Your task to perform on an android device: find which apps use the phone's location Image 0: 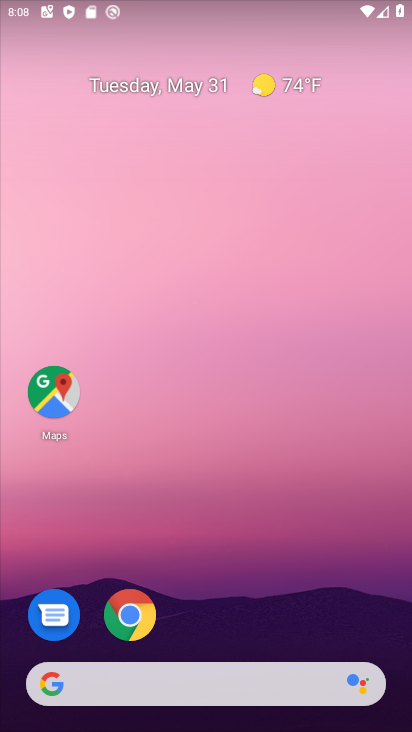
Step 0: drag from (172, 689) to (209, 117)
Your task to perform on an android device: find which apps use the phone's location Image 1: 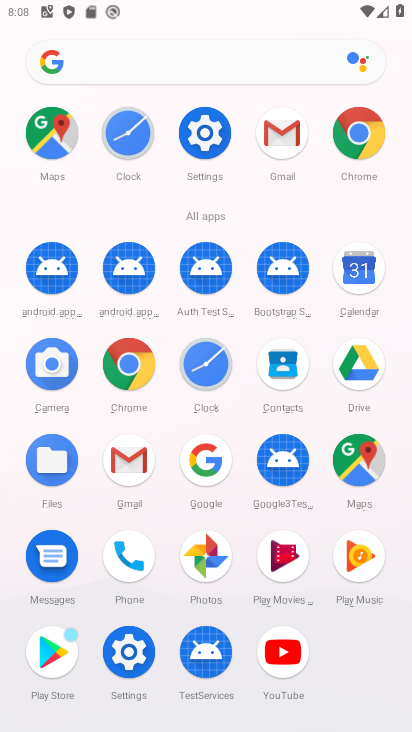
Step 1: click (203, 137)
Your task to perform on an android device: find which apps use the phone's location Image 2: 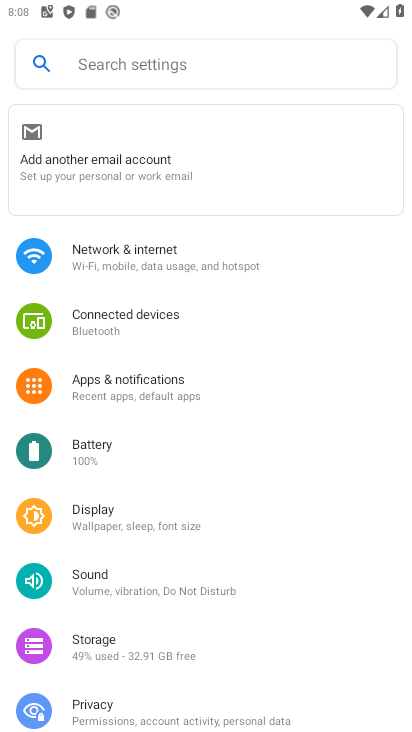
Step 2: drag from (177, 566) to (208, 338)
Your task to perform on an android device: find which apps use the phone's location Image 3: 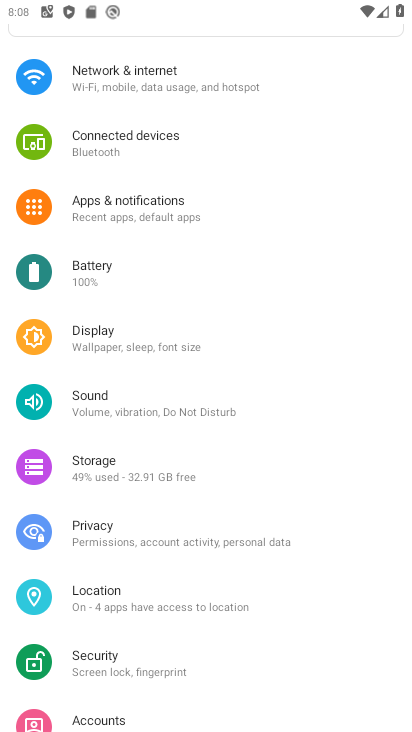
Step 3: click (106, 603)
Your task to perform on an android device: find which apps use the phone's location Image 4: 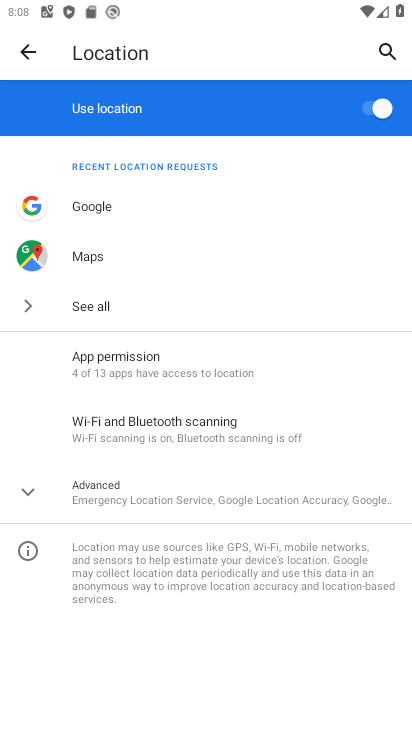
Step 4: click (143, 362)
Your task to perform on an android device: find which apps use the phone's location Image 5: 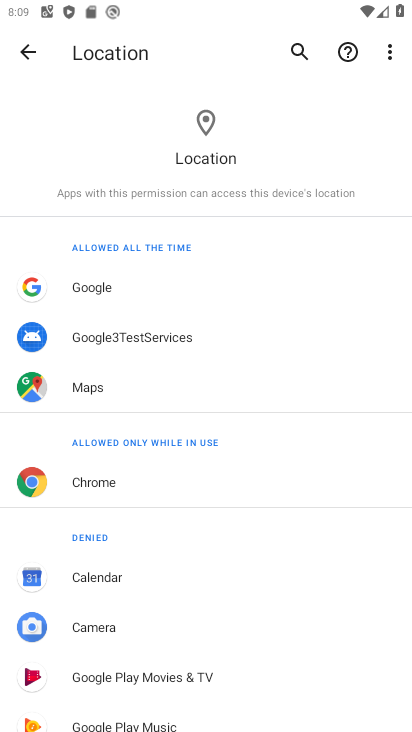
Step 5: drag from (237, 638) to (350, 93)
Your task to perform on an android device: find which apps use the phone's location Image 6: 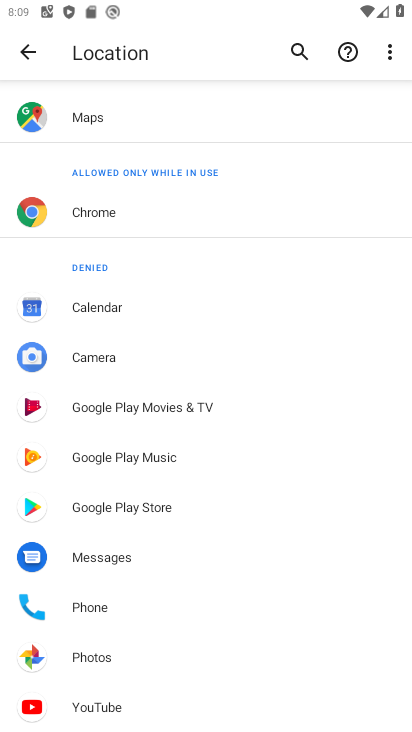
Step 6: click (97, 606)
Your task to perform on an android device: find which apps use the phone's location Image 7: 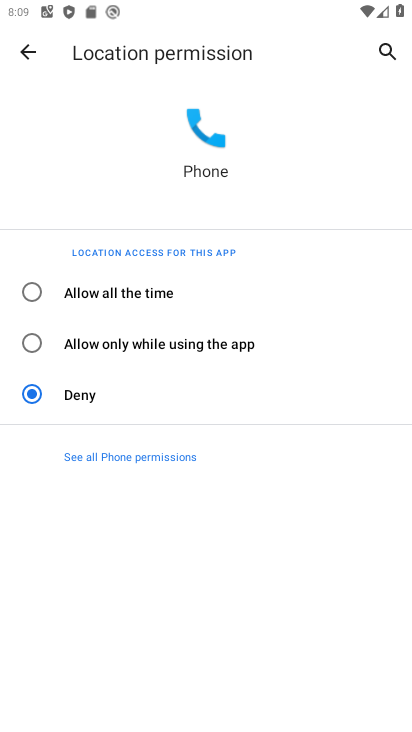
Step 7: task complete